Your task to perform on an android device: Go to Amazon Image 0: 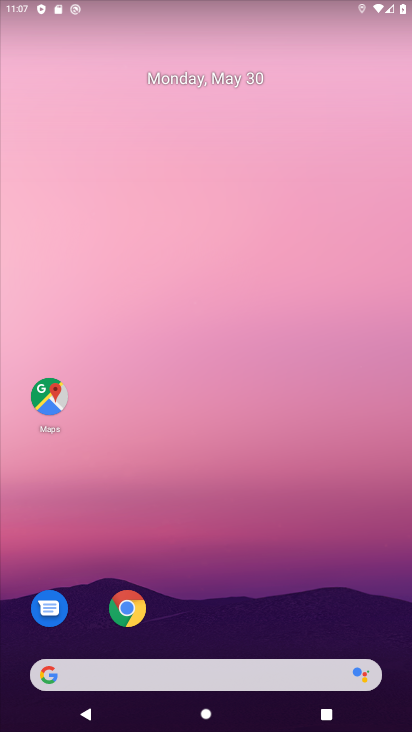
Step 0: click (117, 607)
Your task to perform on an android device: Go to Amazon Image 1: 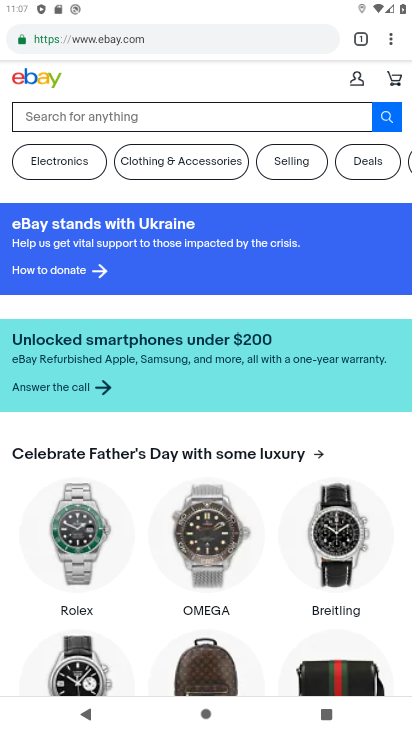
Step 1: click (85, 42)
Your task to perform on an android device: Go to Amazon Image 2: 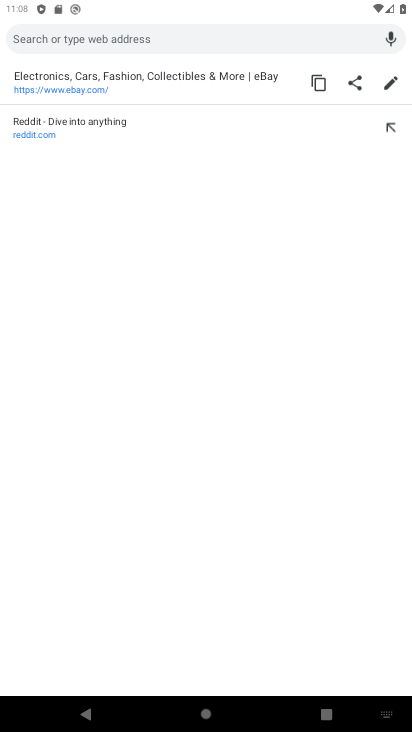
Step 2: type "amazon"
Your task to perform on an android device: Go to Amazon Image 3: 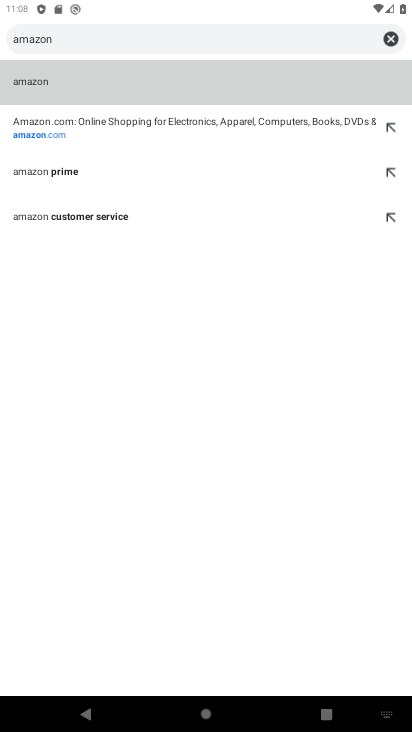
Step 3: click (27, 140)
Your task to perform on an android device: Go to Amazon Image 4: 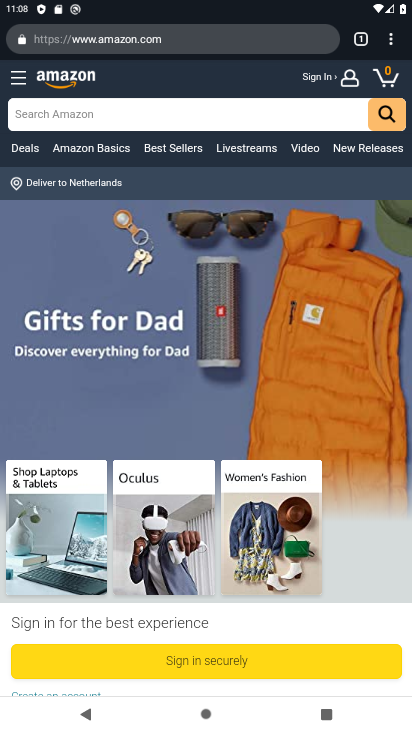
Step 4: task complete